Your task to perform on an android device: Add bose quietcomfort 35 to the cart on walmart.com, then select checkout. Image 0: 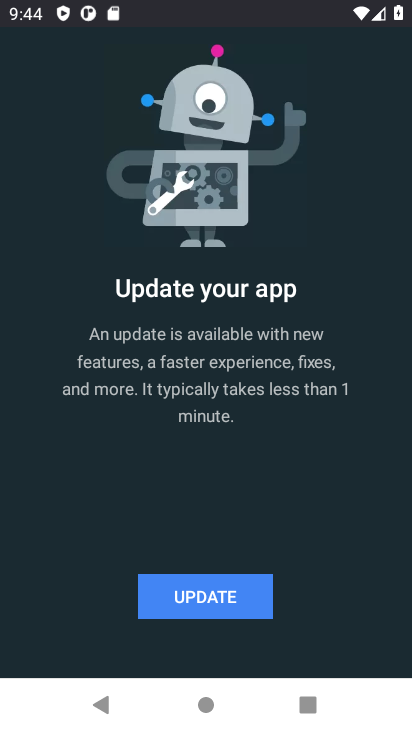
Step 0: press home button
Your task to perform on an android device: Add bose quietcomfort 35 to the cart on walmart.com, then select checkout. Image 1: 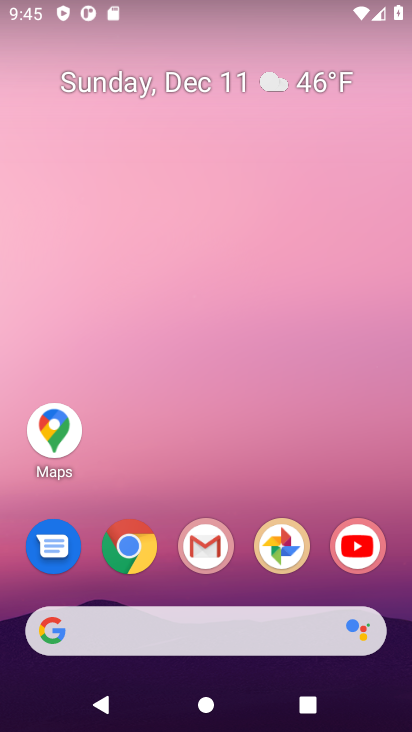
Step 1: click (126, 546)
Your task to perform on an android device: Add bose quietcomfort 35 to the cart on walmart.com, then select checkout. Image 2: 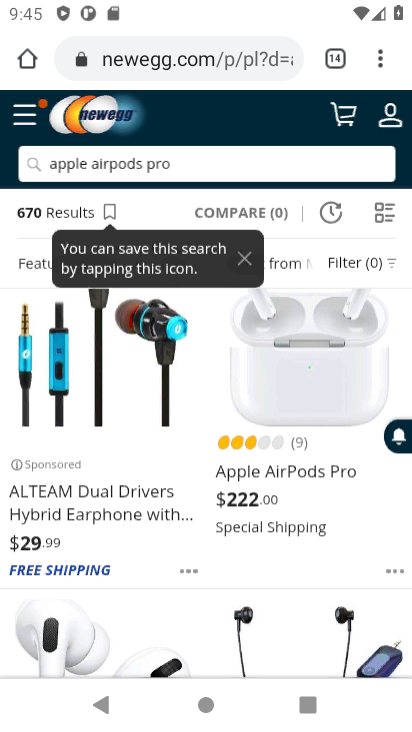
Step 2: click (200, 58)
Your task to perform on an android device: Add bose quietcomfort 35 to the cart on walmart.com, then select checkout. Image 3: 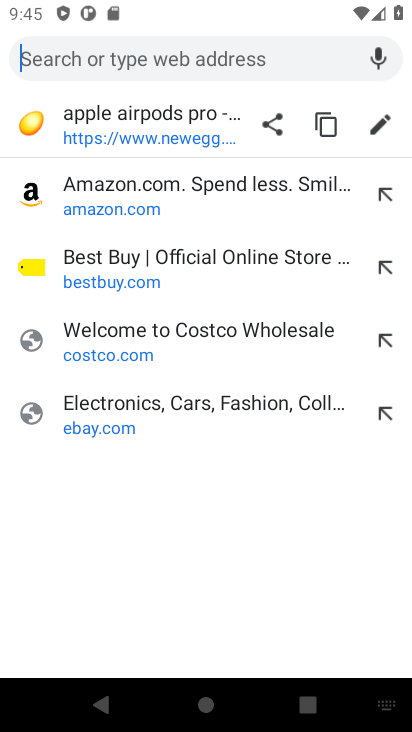
Step 3: type "walmart.com"
Your task to perform on an android device: Add bose quietcomfort 35 to the cart on walmart.com, then select checkout. Image 4: 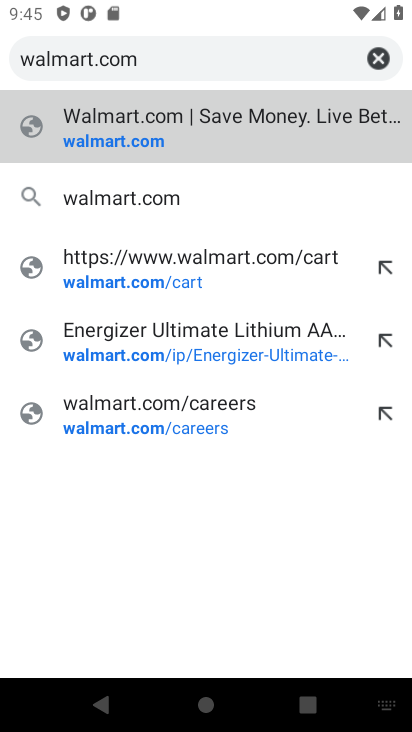
Step 4: click (100, 138)
Your task to perform on an android device: Add bose quietcomfort 35 to the cart on walmart.com, then select checkout. Image 5: 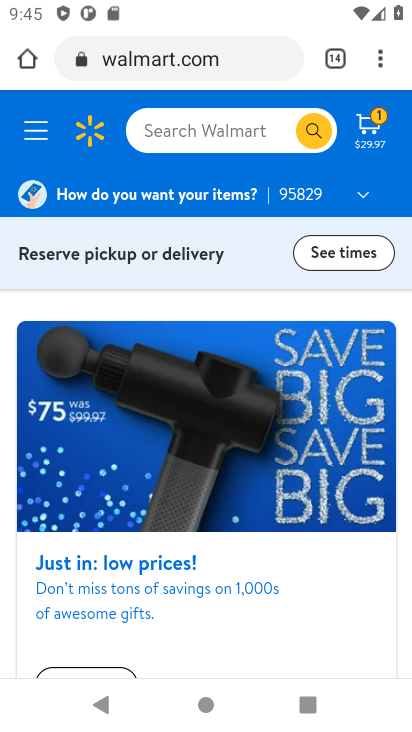
Step 5: click (165, 129)
Your task to perform on an android device: Add bose quietcomfort 35 to the cart on walmart.com, then select checkout. Image 6: 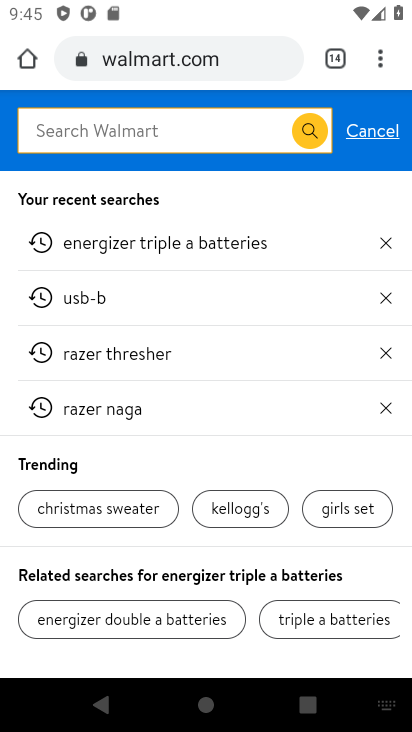
Step 6: type "bose quietcomfort 35"
Your task to perform on an android device: Add bose quietcomfort 35 to the cart on walmart.com, then select checkout. Image 7: 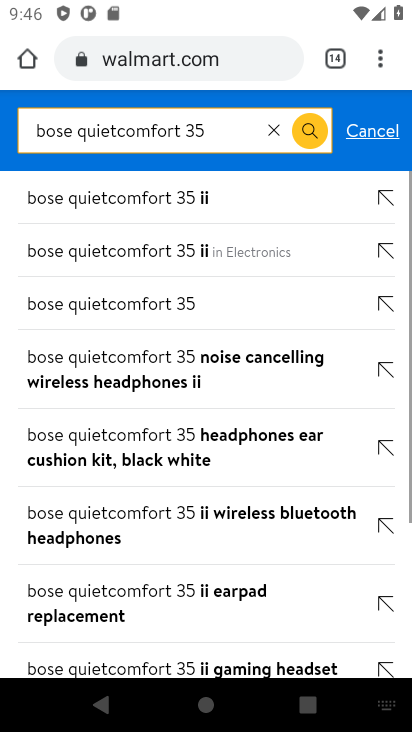
Step 7: click (123, 303)
Your task to perform on an android device: Add bose quietcomfort 35 to the cart on walmart.com, then select checkout. Image 8: 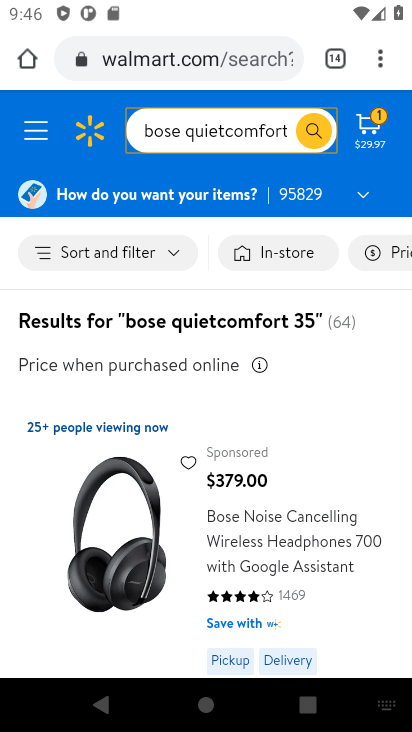
Step 8: drag from (191, 517) to (193, 279)
Your task to perform on an android device: Add bose quietcomfort 35 to the cart on walmart.com, then select checkout. Image 9: 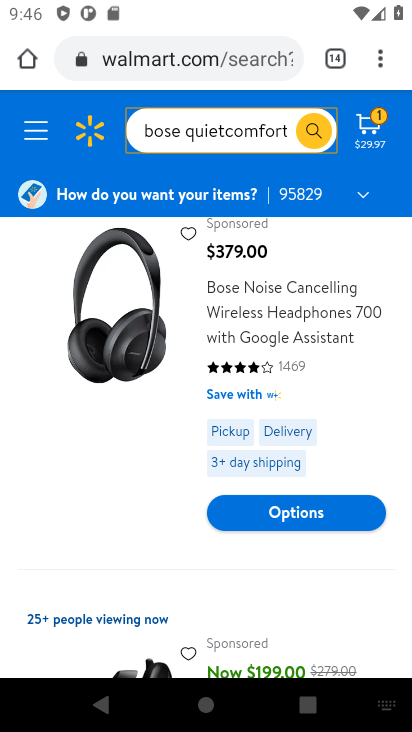
Step 9: drag from (158, 511) to (190, 201)
Your task to perform on an android device: Add bose quietcomfort 35 to the cart on walmart.com, then select checkout. Image 10: 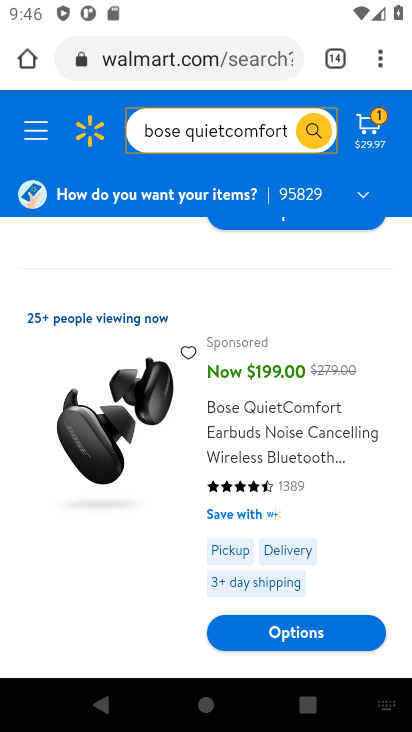
Step 10: drag from (139, 431) to (150, 205)
Your task to perform on an android device: Add bose quietcomfort 35 to the cart on walmart.com, then select checkout. Image 11: 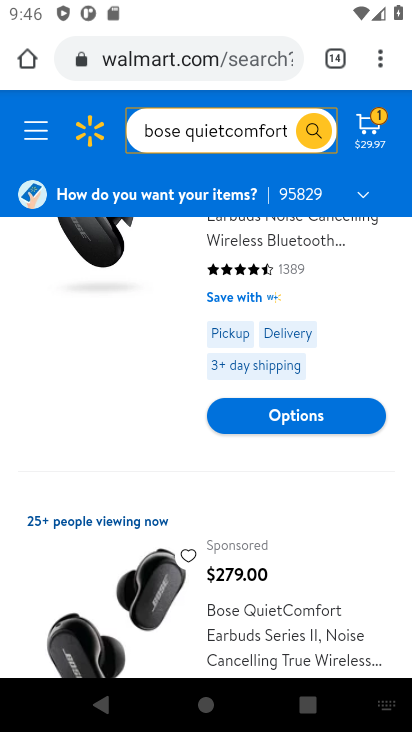
Step 11: drag from (142, 552) to (136, 211)
Your task to perform on an android device: Add bose quietcomfort 35 to the cart on walmart.com, then select checkout. Image 12: 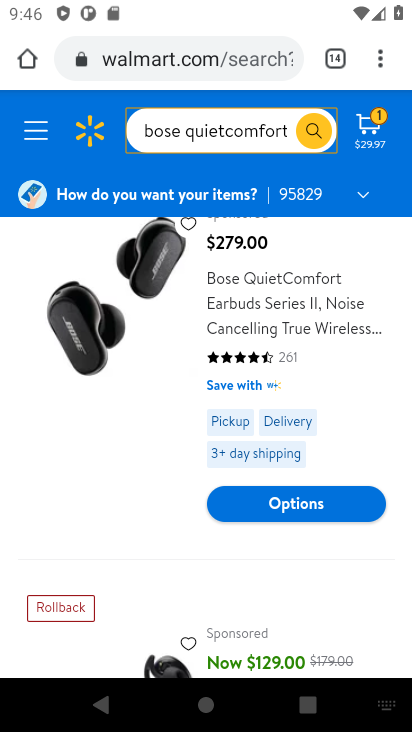
Step 12: drag from (165, 538) to (154, 202)
Your task to perform on an android device: Add bose quietcomfort 35 to the cart on walmart.com, then select checkout. Image 13: 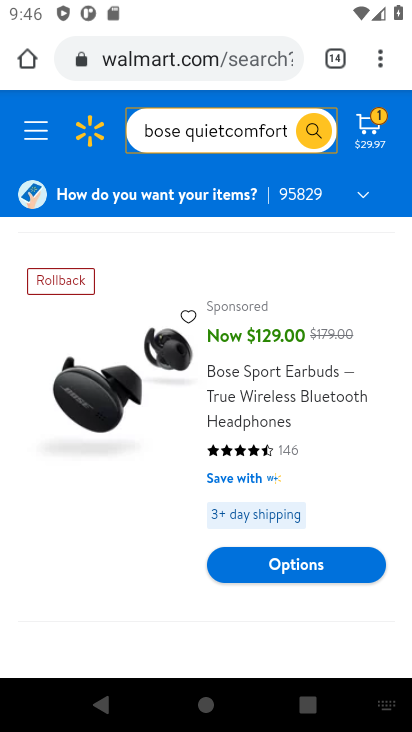
Step 13: drag from (152, 474) to (149, 207)
Your task to perform on an android device: Add bose quietcomfort 35 to the cart on walmart.com, then select checkout. Image 14: 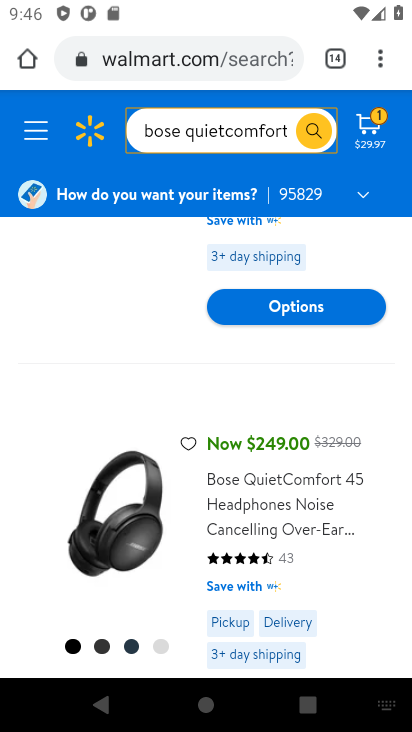
Step 14: drag from (117, 553) to (107, 205)
Your task to perform on an android device: Add bose quietcomfort 35 to the cart on walmart.com, then select checkout. Image 15: 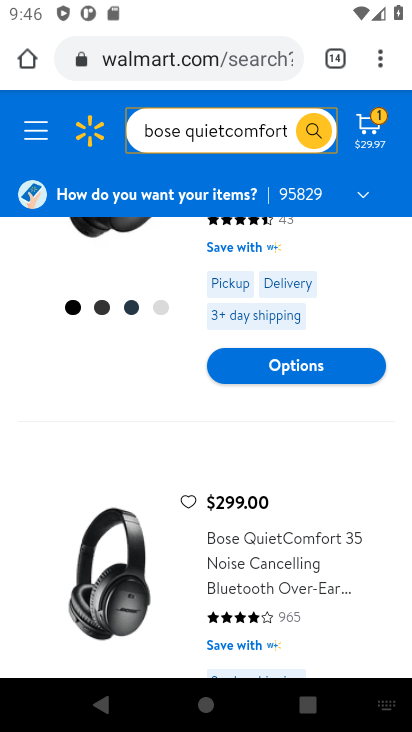
Step 15: drag from (114, 539) to (115, 287)
Your task to perform on an android device: Add bose quietcomfort 35 to the cart on walmart.com, then select checkout. Image 16: 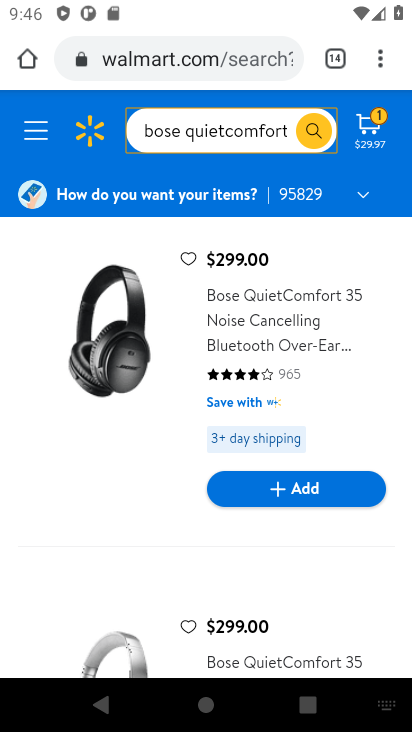
Step 16: click (342, 495)
Your task to perform on an android device: Add bose quietcomfort 35 to the cart on walmart.com, then select checkout. Image 17: 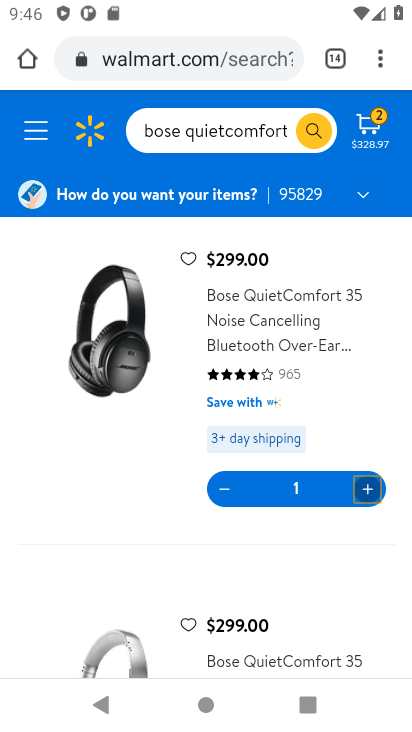
Step 17: click (371, 136)
Your task to perform on an android device: Add bose quietcomfort 35 to the cart on walmart.com, then select checkout. Image 18: 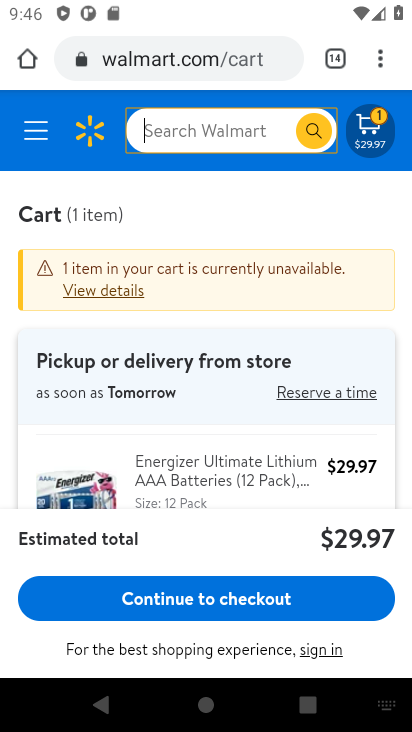
Step 18: click (216, 602)
Your task to perform on an android device: Add bose quietcomfort 35 to the cart on walmart.com, then select checkout. Image 19: 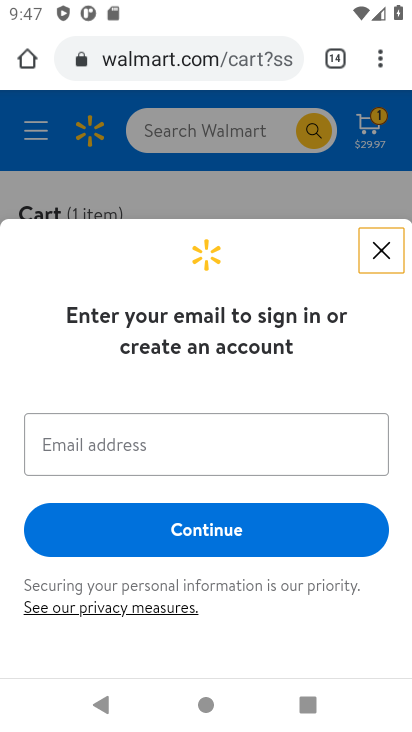
Step 19: task complete